Your task to perform on an android device: Go to Maps Image 0: 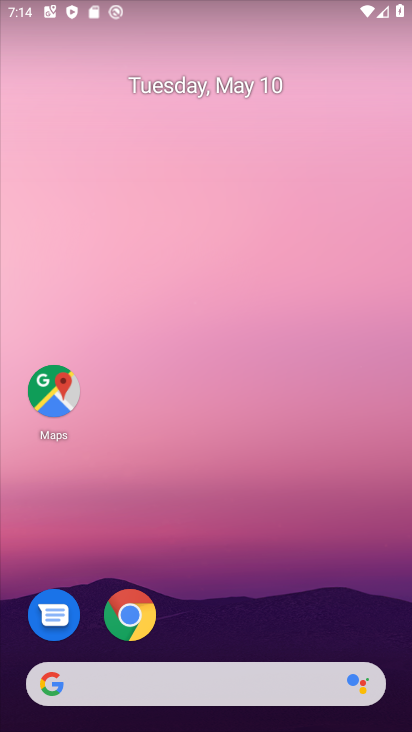
Step 0: click (207, 133)
Your task to perform on an android device: Go to Maps Image 1: 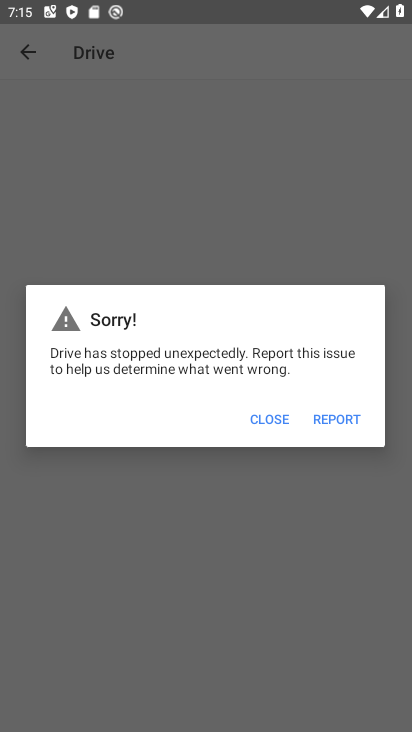
Step 1: press home button
Your task to perform on an android device: Go to Maps Image 2: 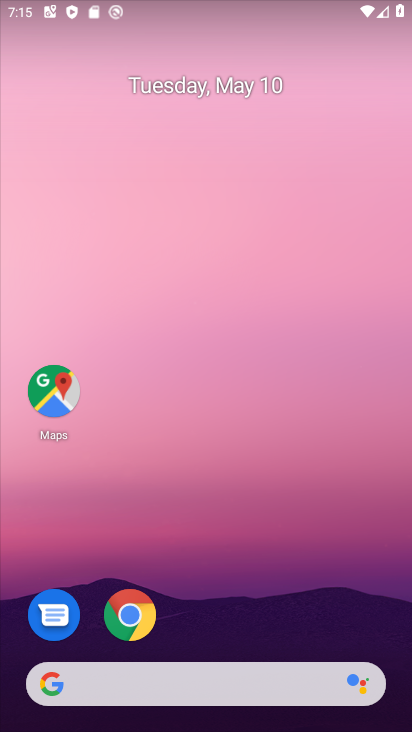
Step 2: click (47, 394)
Your task to perform on an android device: Go to Maps Image 3: 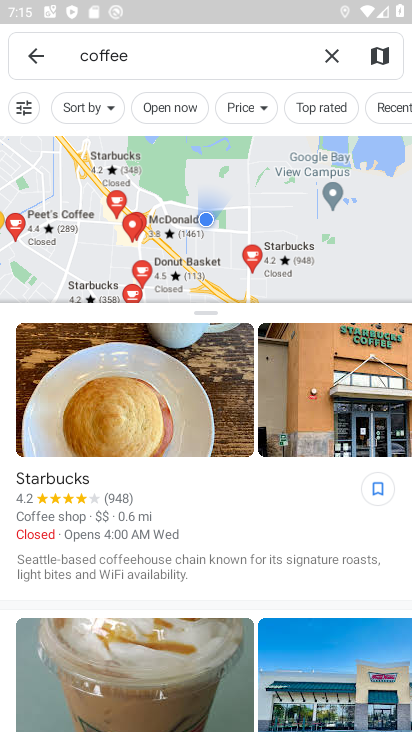
Step 3: task complete